Your task to perform on an android device: Go to internet settings Image 0: 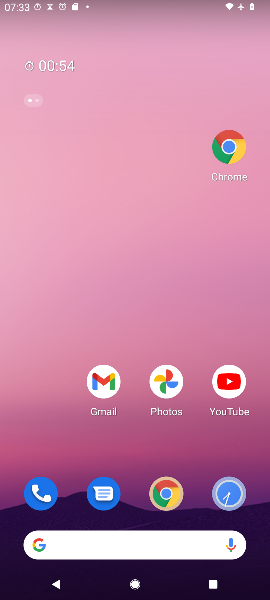
Step 0: press home button
Your task to perform on an android device: Go to internet settings Image 1: 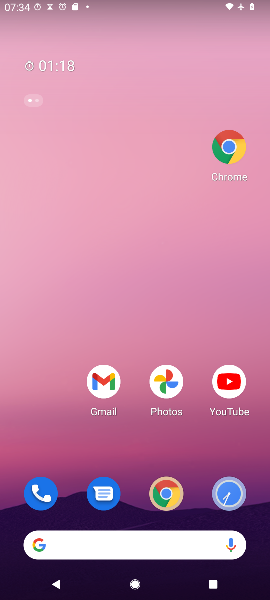
Step 1: drag from (154, 514) to (143, 68)
Your task to perform on an android device: Go to internet settings Image 2: 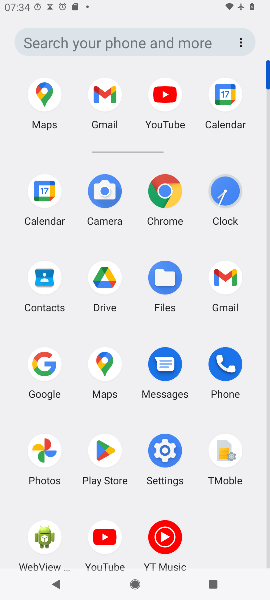
Step 2: click (169, 459)
Your task to perform on an android device: Go to internet settings Image 3: 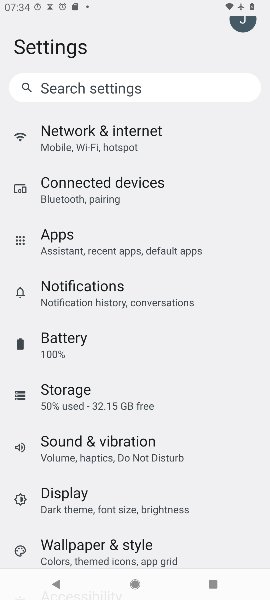
Step 3: click (97, 147)
Your task to perform on an android device: Go to internet settings Image 4: 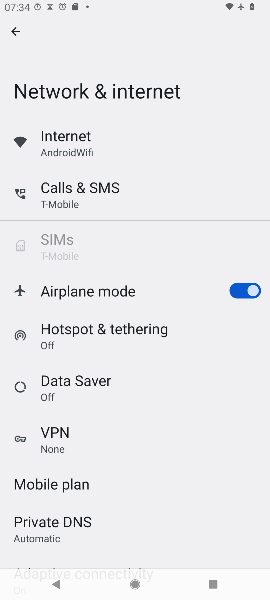
Step 4: click (69, 146)
Your task to perform on an android device: Go to internet settings Image 5: 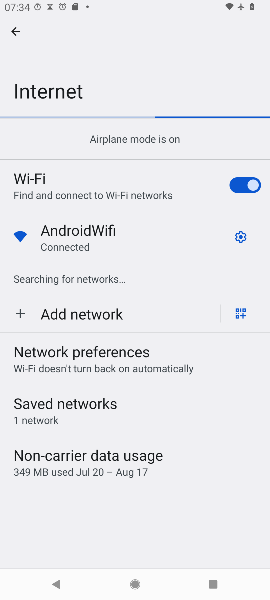
Step 5: task complete